Your task to perform on an android device: open sync settings in chrome Image 0: 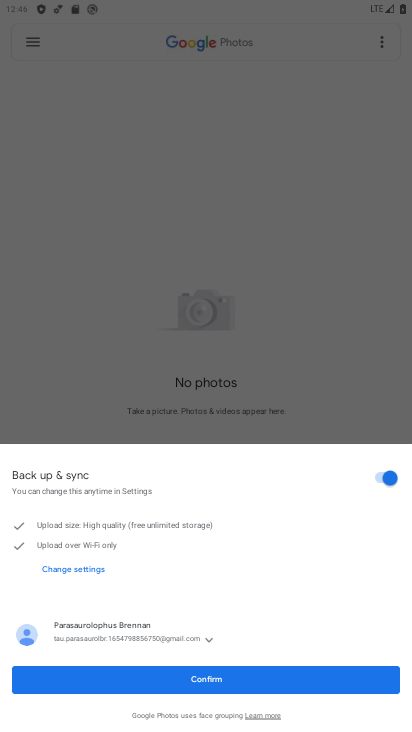
Step 0: press back button
Your task to perform on an android device: open sync settings in chrome Image 1: 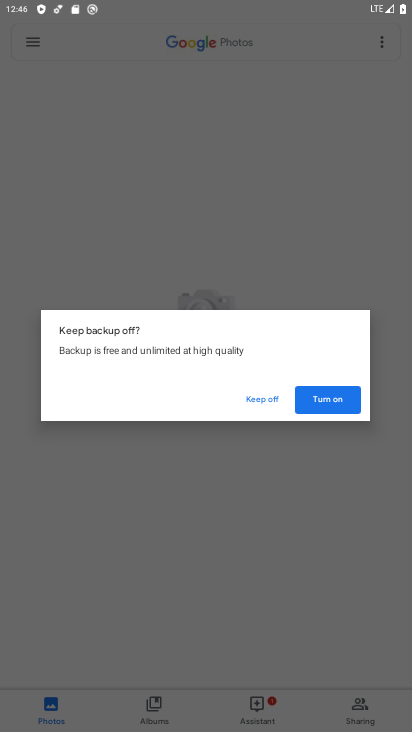
Step 1: press back button
Your task to perform on an android device: open sync settings in chrome Image 2: 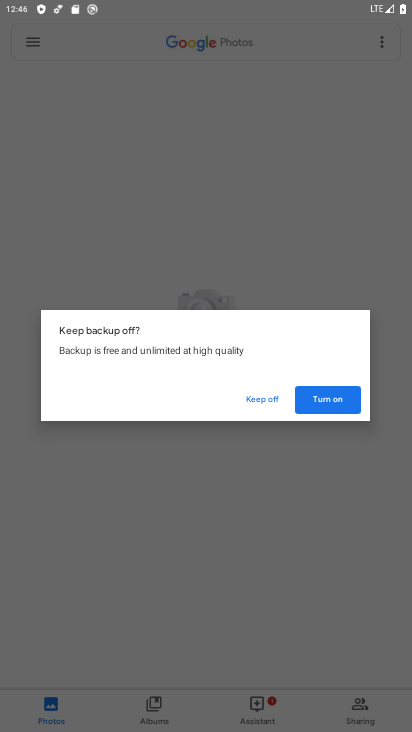
Step 2: press back button
Your task to perform on an android device: open sync settings in chrome Image 3: 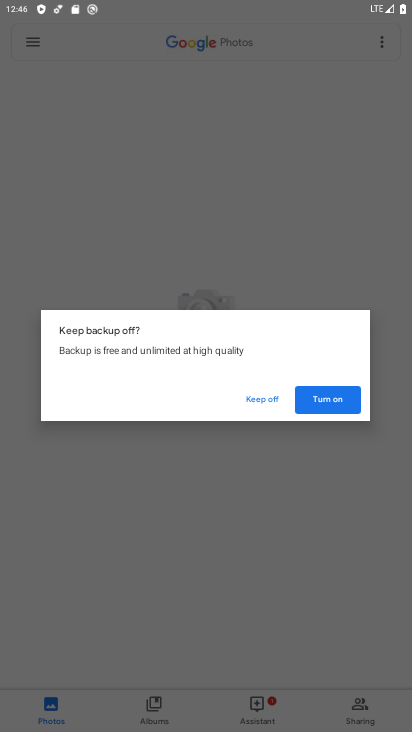
Step 3: press home button
Your task to perform on an android device: open sync settings in chrome Image 4: 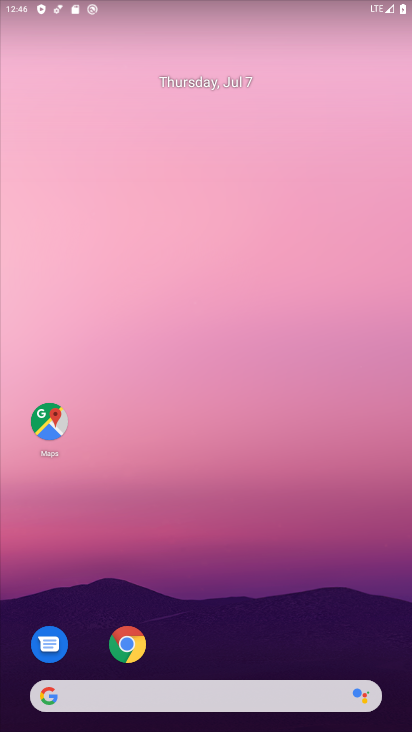
Step 4: drag from (397, 708) to (410, 169)
Your task to perform on an android device: open sync settings in chrome Image 5: 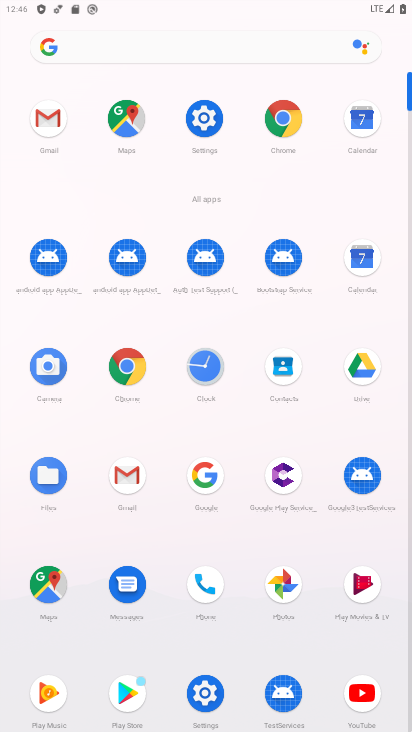
Step 5: click (277, 111)
Your task to perform on an android device: open sync settings in chrome Image 6: 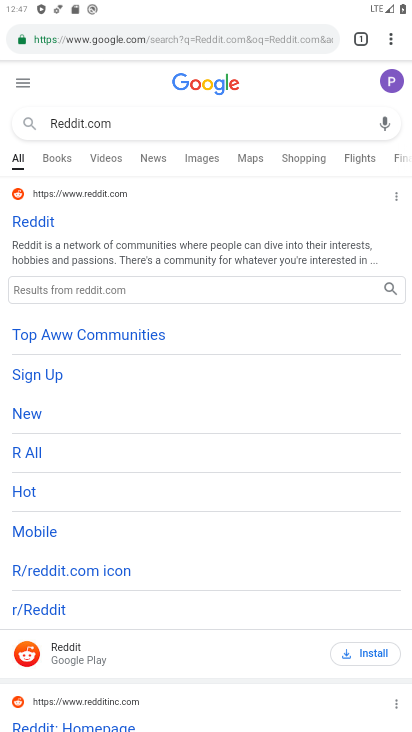
Step 6: click (391, 30)
Your task to perform on an android device: open sync settings in chrome Image 7: 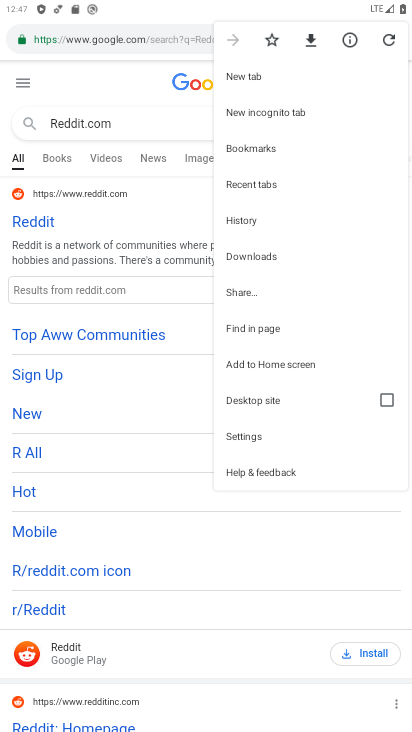
Step 7: click (256, 436)
Your task to perform on an android device: open sync settings in chrome Image 8: 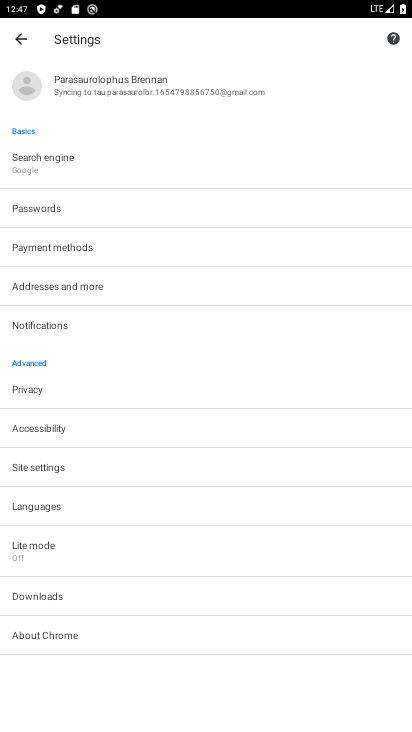
Step 8: click (42, 460)
Your task to perform on an android device: open sync settings in chrome Image 9: 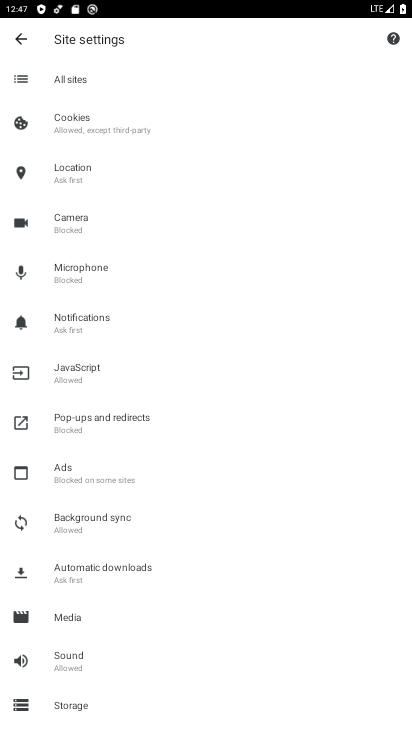
Step 9: click (70, 520)
Your task to perform on an android device: open sync settings in chrome Image 10: 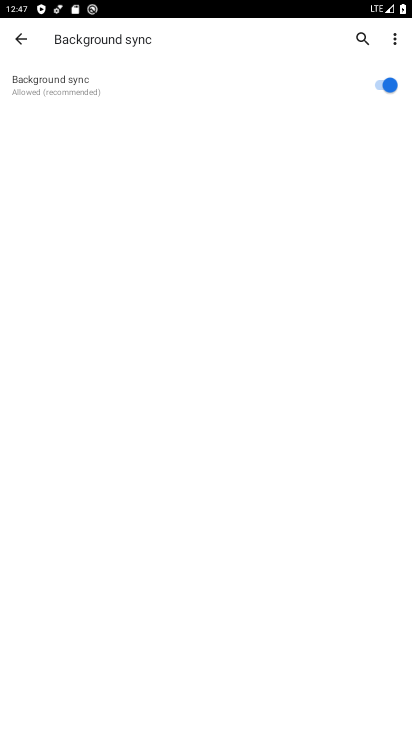
Step 10: task complete